Your task to perform on an android device: change keyboard looks Image 0: 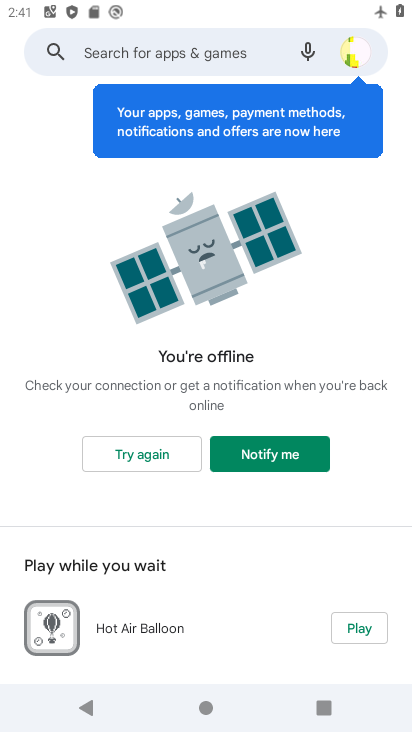
Step 0: press home button
Your task to perform on an android device: change keyboard looks Image 1: 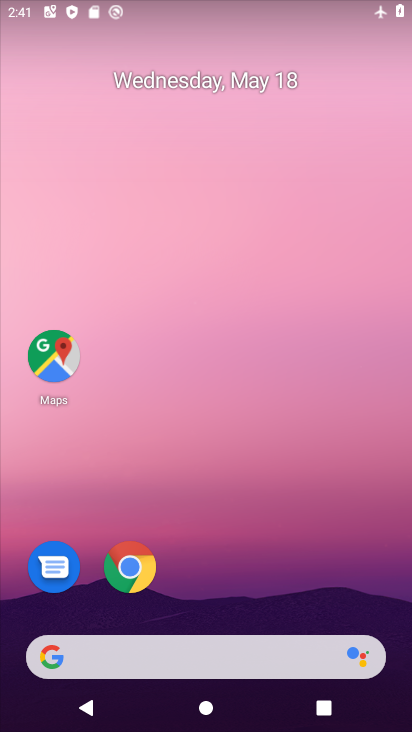
Step 1: drag from (233, 582) to (178, 183)
Your task to perform on an android device: change keyboard looks Image 2: 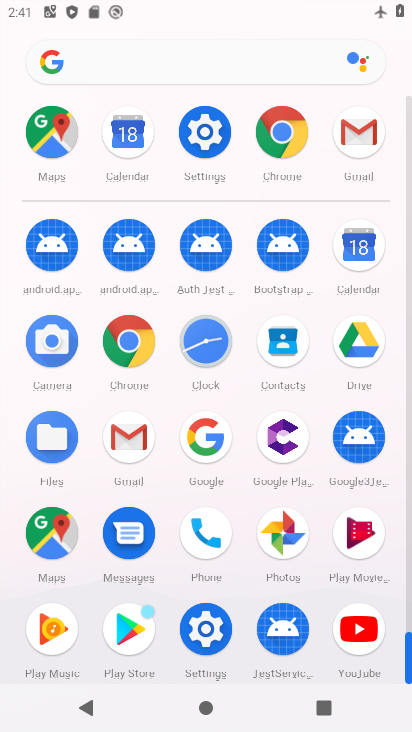
Step 2: click (192, 132)
Your task to perform on an android device: change keyboard looks Image 3: 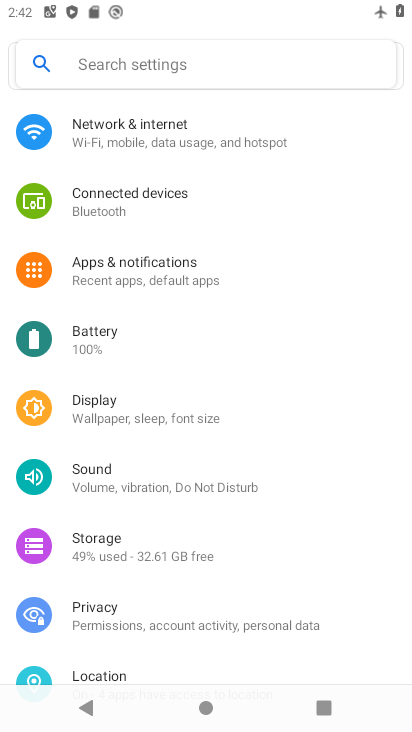
Step 3: drag from (159, 625) to (178, 158)
Your task to perform on an android device: change keyboard looks Image 4: 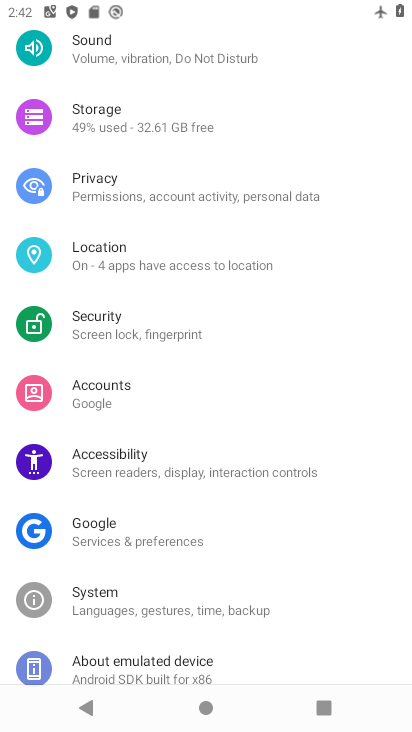
Step 4: click (122, 463)
Your task to perform on an android device: change keyboard looks Image 5: 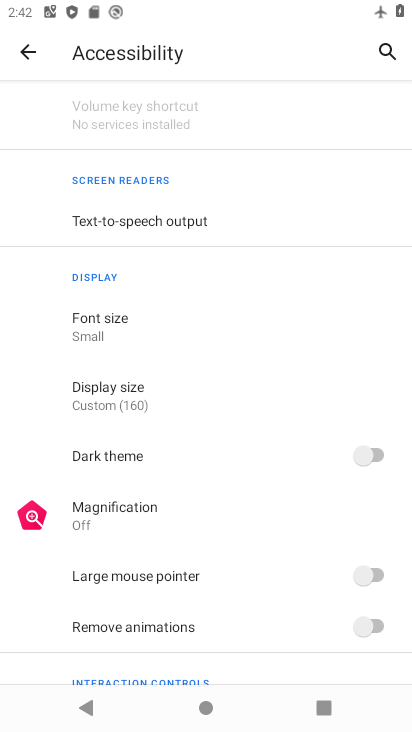
Step 5: click (37, 49)
Your task to perform on an android device: change keyboard looks Image 6: 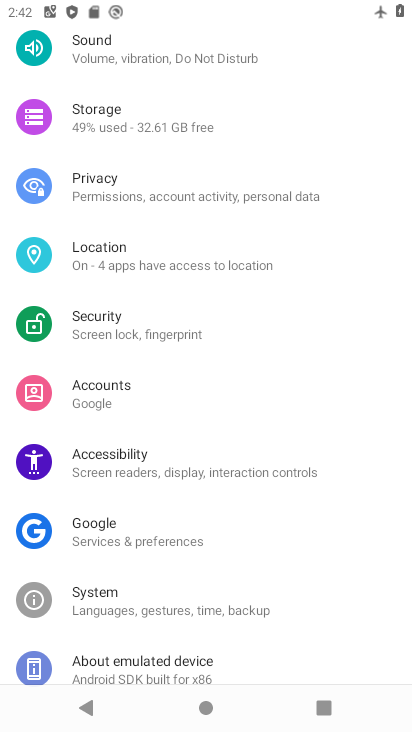
Step 6: click (144, 606)
Your task to perform on an android device: change keyboard looks Image 7: 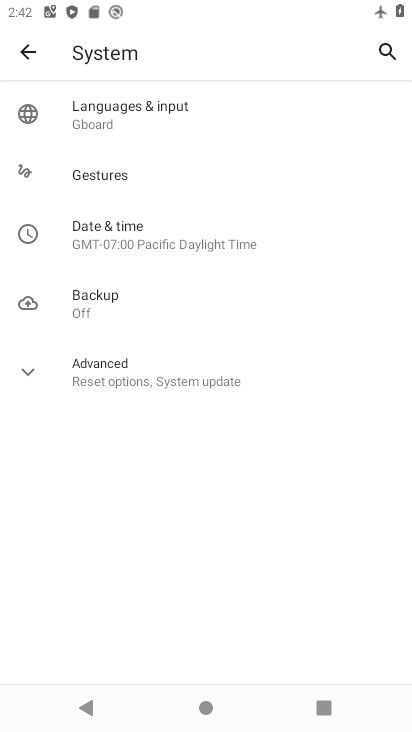
Step 7: click (132, 115)
Your task to perform on an android device: change keyboard looks Image 8: 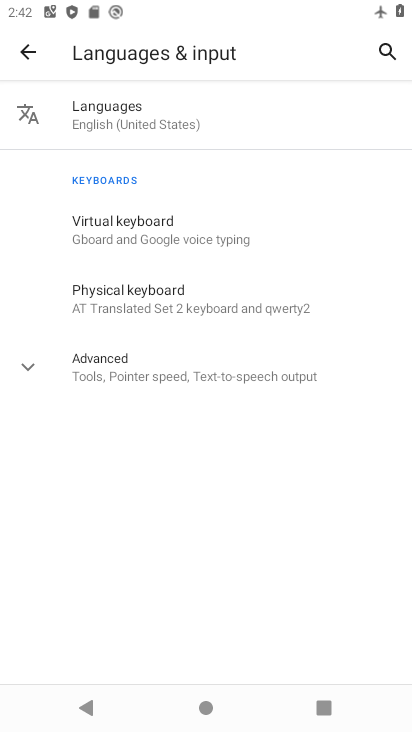
Step 8: click (129, 225)
Your task to perform on an android device: change keyboard looks Image 9: 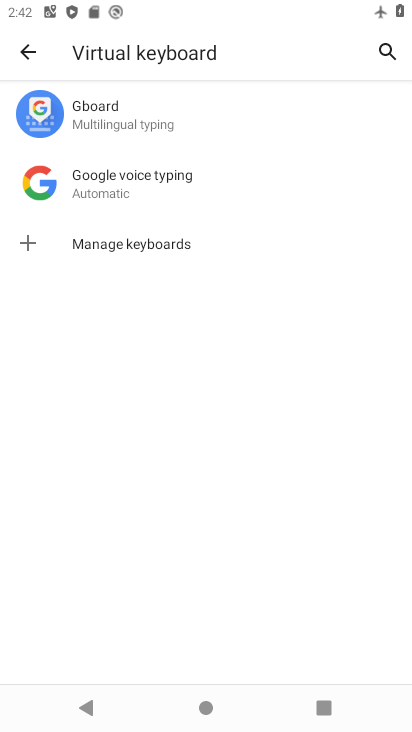
Step 9: click (81, 118)
Your task to perform on an android device: change keyboard looks Image 10: 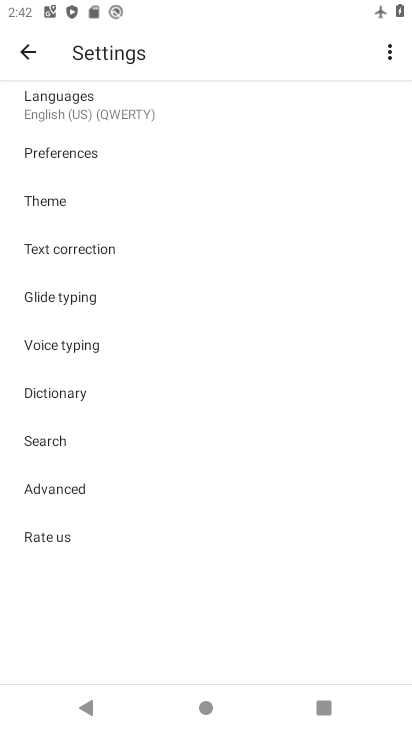
Step 10: click (77, 197)
Your task to perform on an android device: change keyboard looks Image 11: 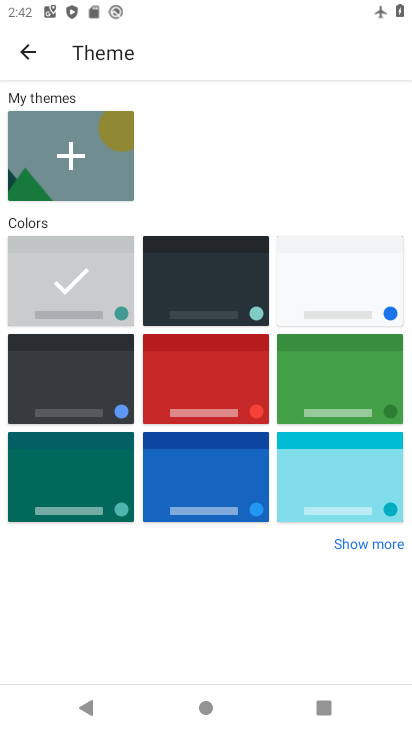
Step 11: click (193, 469)
Your task to perform on an android device: change keyboard looks Image 12: 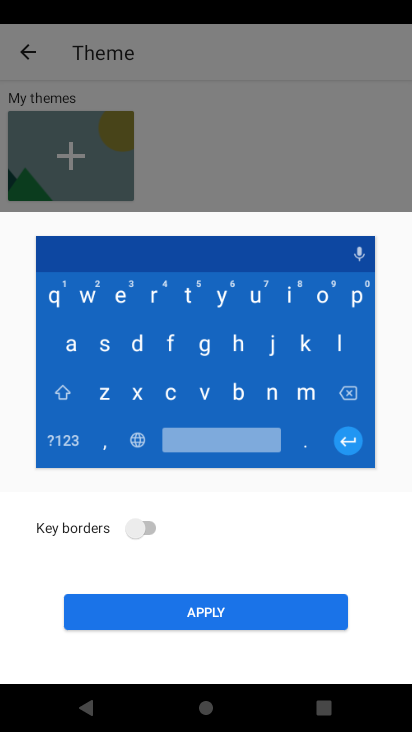
Step 12: click (214, 603)
Your task to perform on an android device: change keyboard looks Image 13: 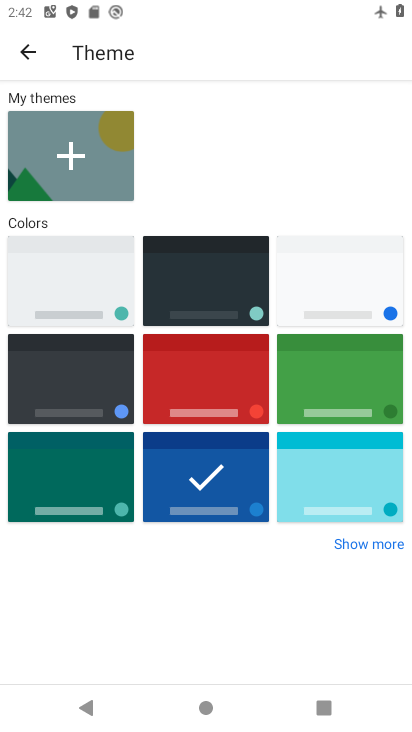
Step 13: task complete